Your task to perform on an android device: turn on bluetooth scan Image 0: 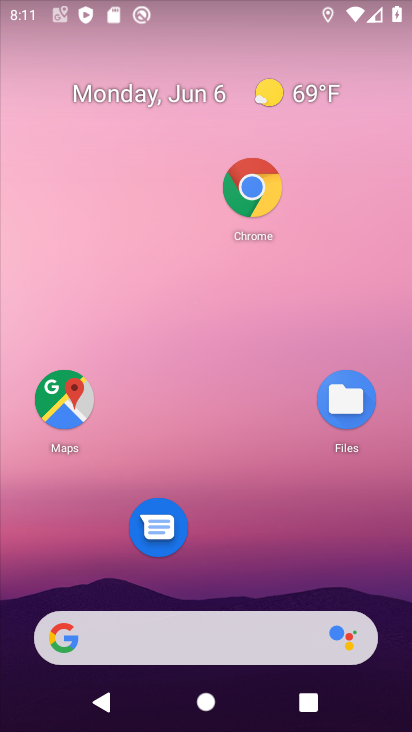
Step 0: drag from (252, 550) to (250, 100)
Your task to perform on an android device: turn on bluetooth scan Image 1: 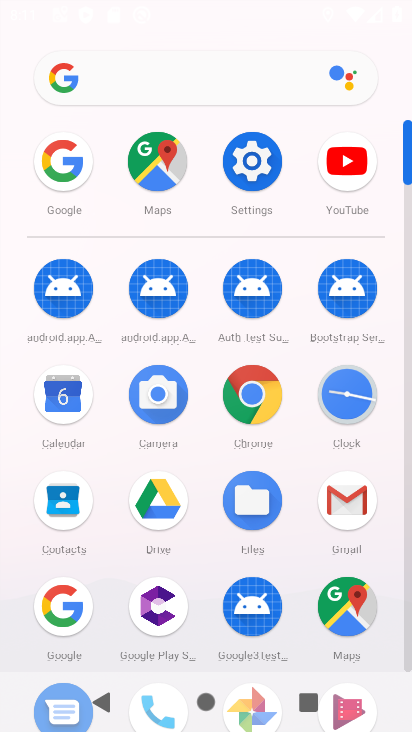
Step 1: click (255, 163)
Your task to perform on an android device: turn on bluetooth scan Image 2: 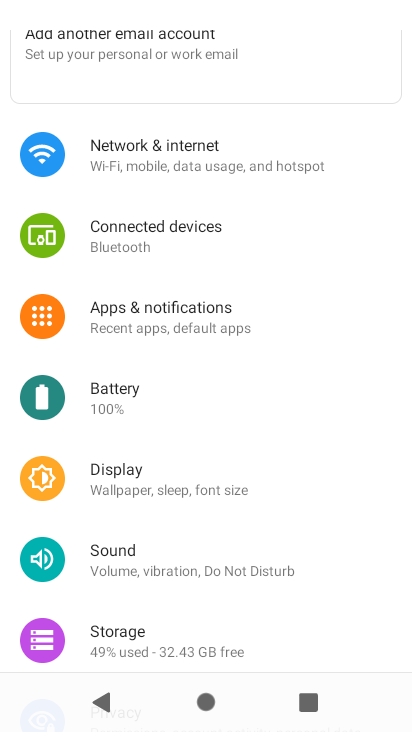
Step 2: drag from (134, 562) to (158, 87)
Your task to perform on an android device: turn on bluetooth scan Image 3: 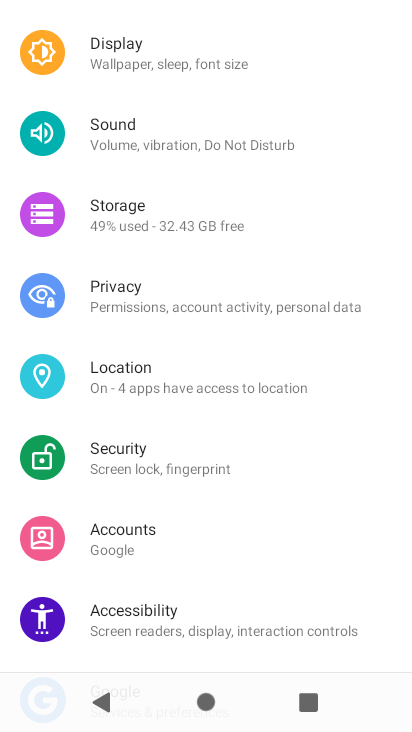
Step 3: click (98, 405)
Your task to perform on an android device: turn on bluetooth scan Image 4: 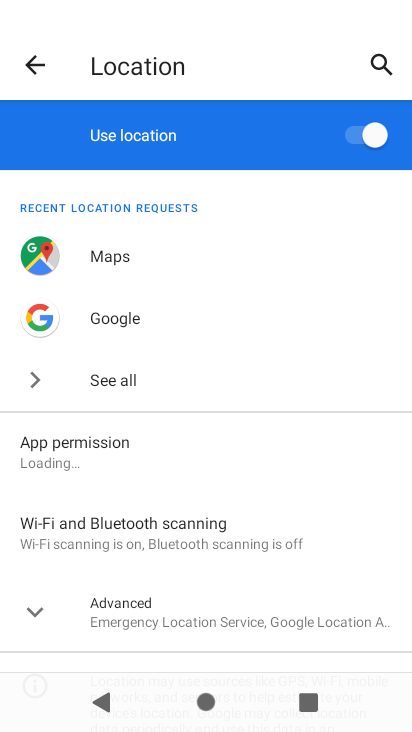
Step 4: click (153, 521)
Your task to perform on an android device: turn on bluetooth scan Image 5: 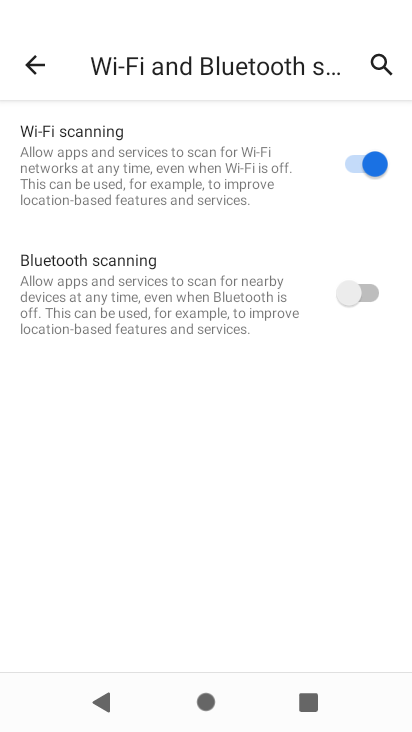
Step 5: click (365, 278)
Your task to perform on an android device: turn on bluetooth scan Image 6: 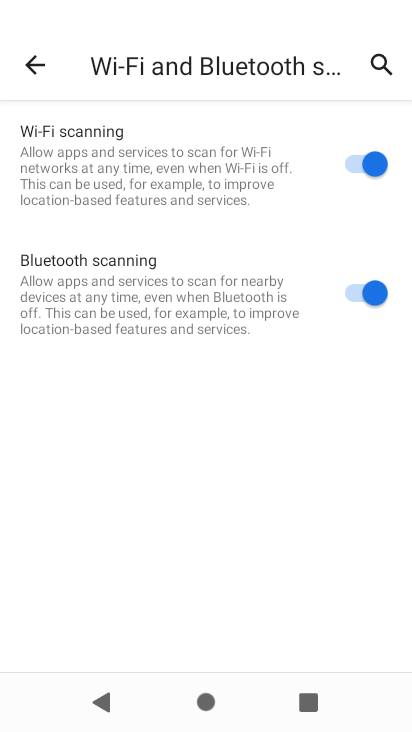
Step 6: task complete